Your task to perform on an android device: Check the news Image 0: 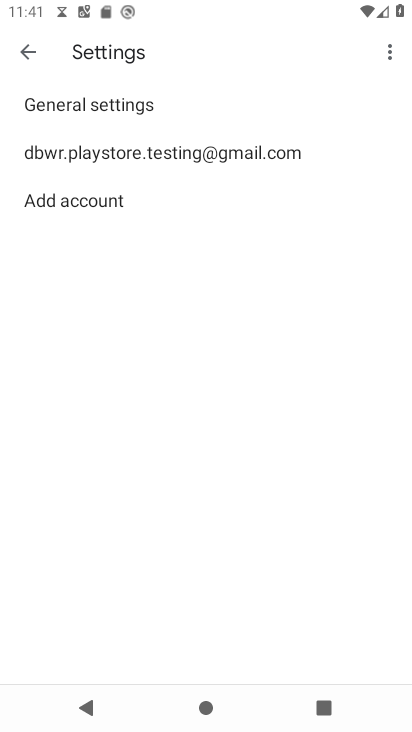
Step 0: press home button
Your task to perform on an android device: Check the news Image 1: 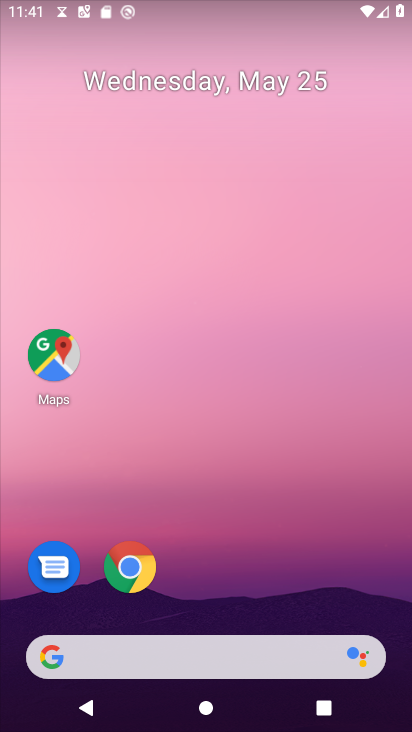
Step 1: click (219, 601)
Your task to perform on an android device: Check the news Image 2: 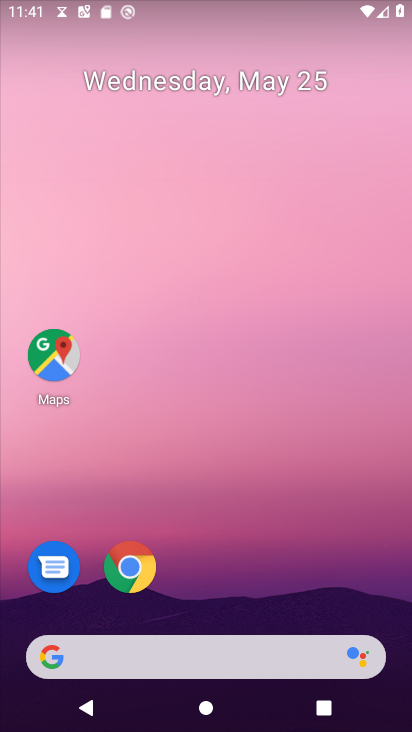
Step 2: click (171, 646)
Your task to perform on an android device: Check the news Image 3: 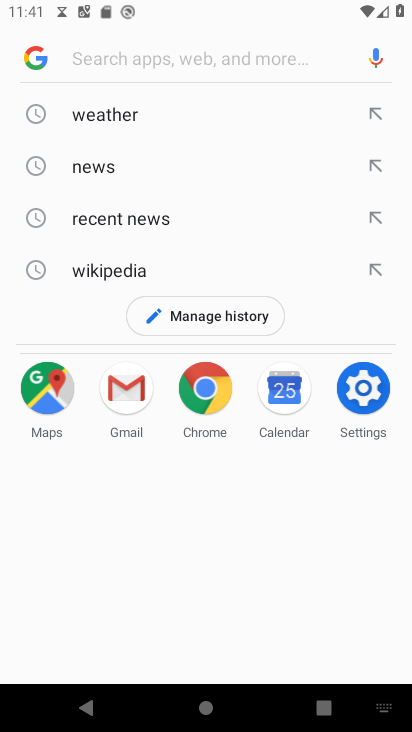
Step 3: click (146, 172)
Your task to perform on an android device: Check the news Image 4: 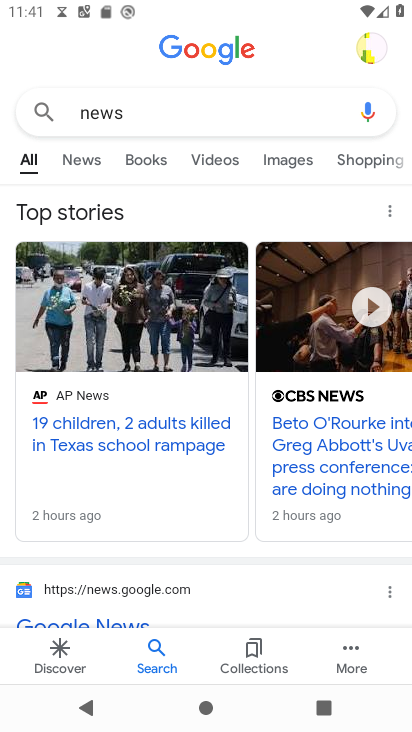
Step 4: task complete